Your task to perform on an android device: Go to Reddit.com Image 0: 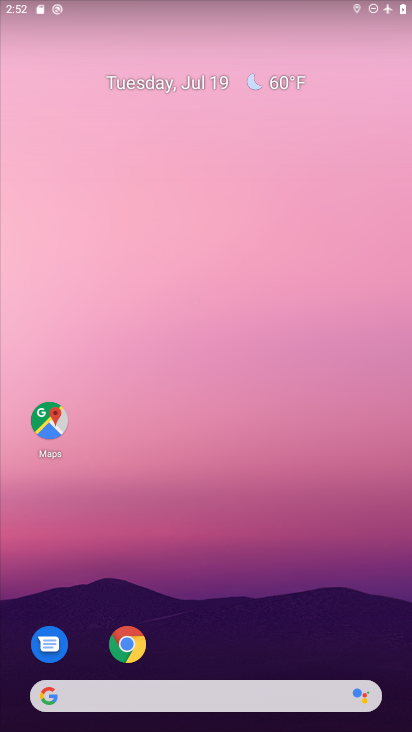
Step 0: click (141, 644)
Your task to perform on an android device: Go to Reddit.com Image 1: 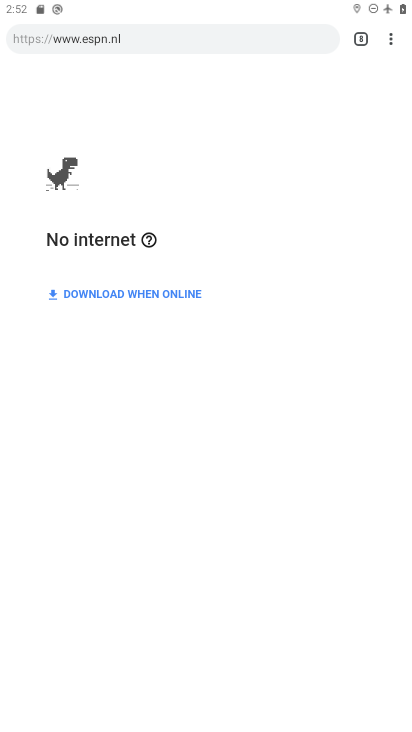
Step 1: click (234, 40)
Your task to perform on an android device: Go to Reddit.com Image 2: 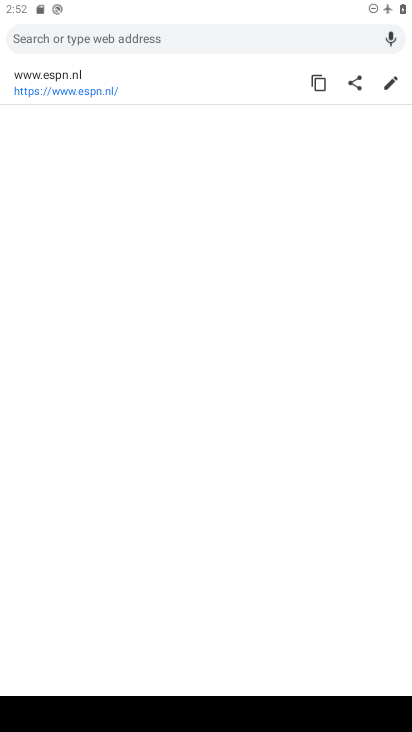
Step 2: type " Reddit.com"
Your task to perform on an android device: Go to Reddit.com Image 3: 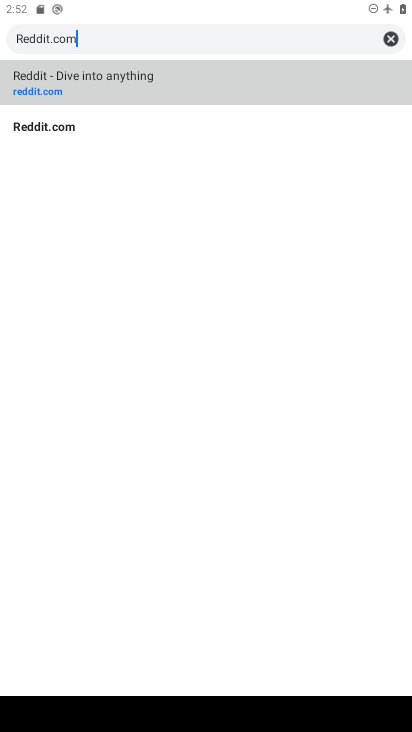
Step 3: type ""
Your task to perform on an android device: Go to Reddit.com Image 4: 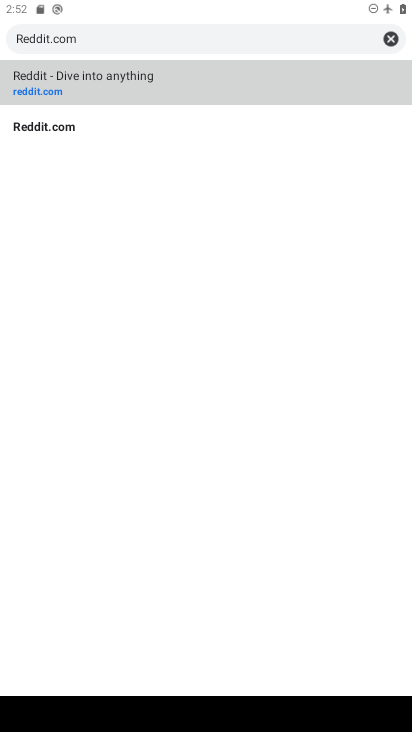
Step 4: click (18, 66)
Your task to perform on an android device: Go to Reddit.com Image 5: 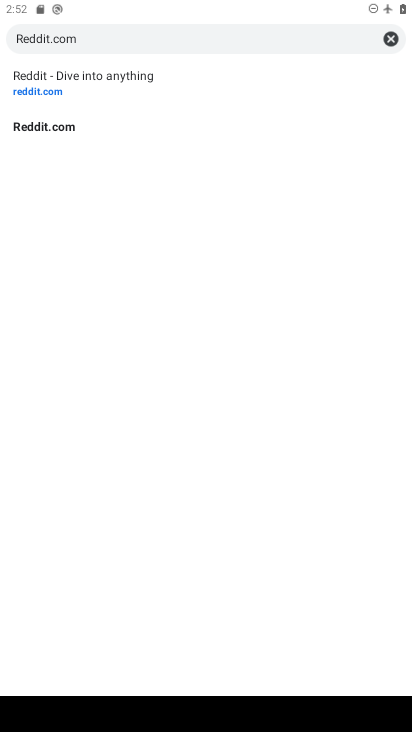
Step 5: click (39, 90)
Your task to perform on an android device: Go to Reddit.com Image 6: 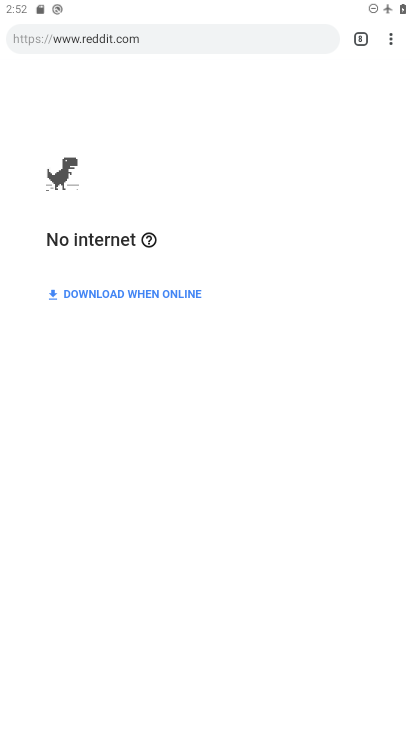
Step 6: task complete